Your task to perform on an android device: What's the weather? Image 0: 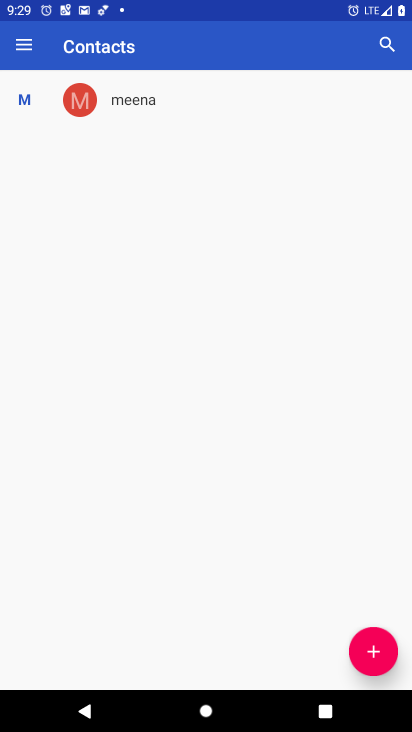
Step 0: press home button
Your task to perform on an android device: What's the weather? Image 1: 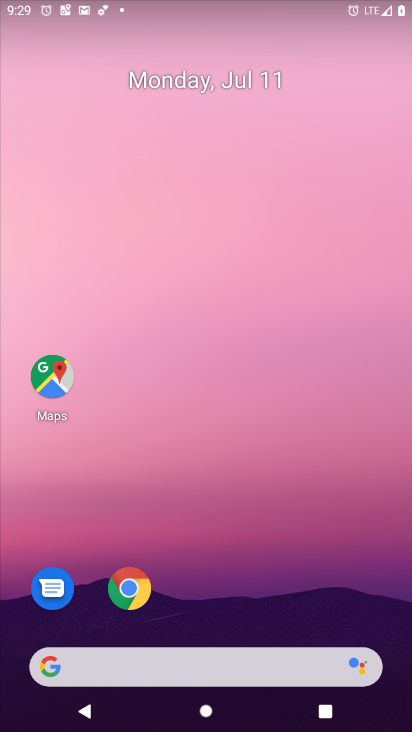
Step 1: click (189, 673)
Your task to perform on an android device: What's the weather? Image 2: 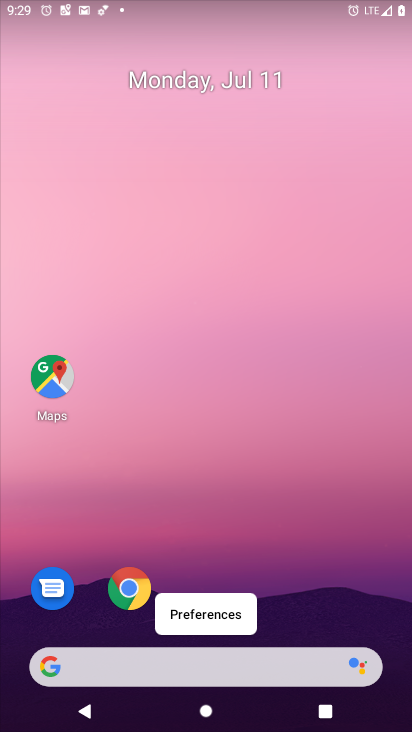
Step 2: click (198, 657)
Your task to perform on an android device: What's the weather? Image 3: 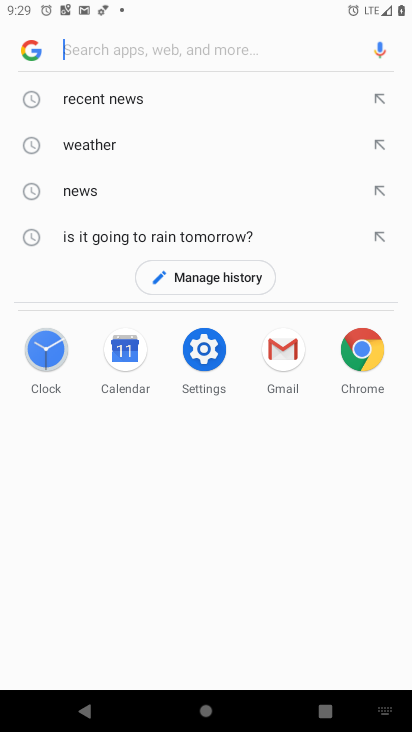
Step 3: click (88, 139)
Your task to perform on an android device: What's the weather? Image 4: 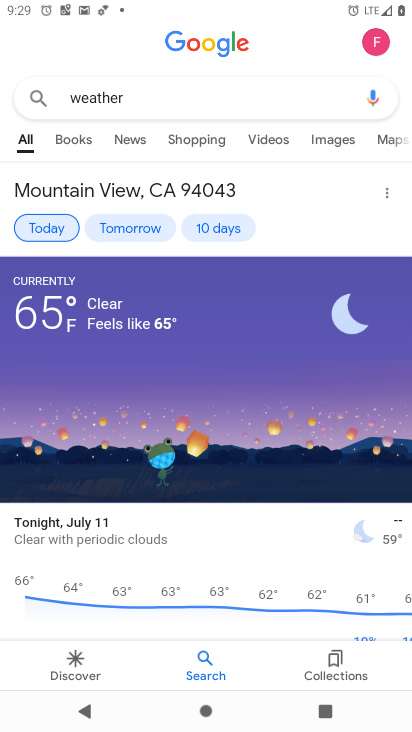
Step 4: task complete